Your task to perform on an android device: Do I have any events today? Image 0: 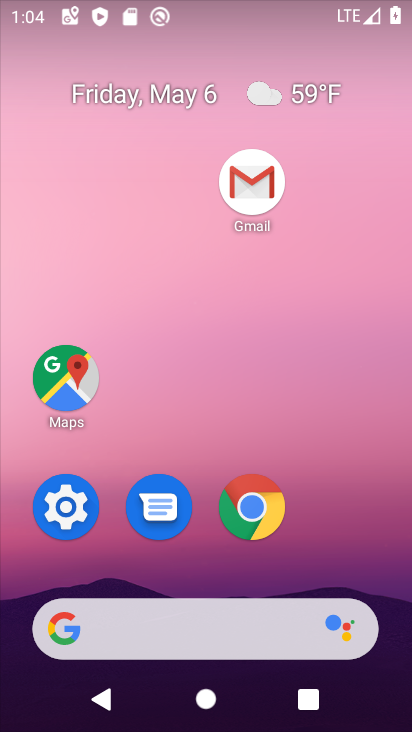
Step 0: drag from (362, 480) to (232, 10)
Your task to perform on an android device: Do I have any events today? Image 1: 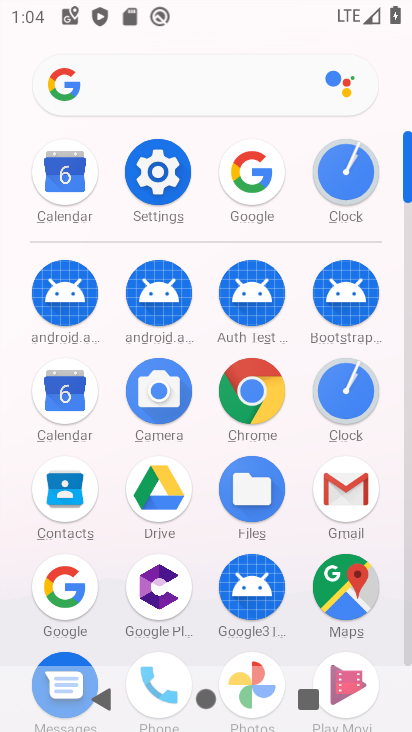
Step 1: click (67, 407)
Your task to perform on an android device: Do I have any events today? Image 2: 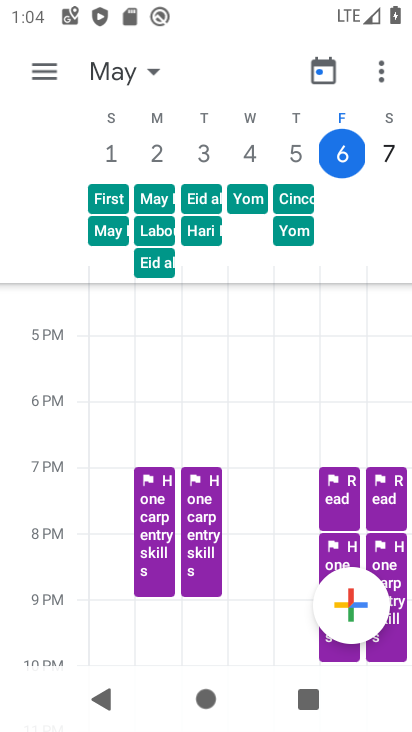
Step 2: task complete